Your task to perform on an android device: change notifications settings Image 0: 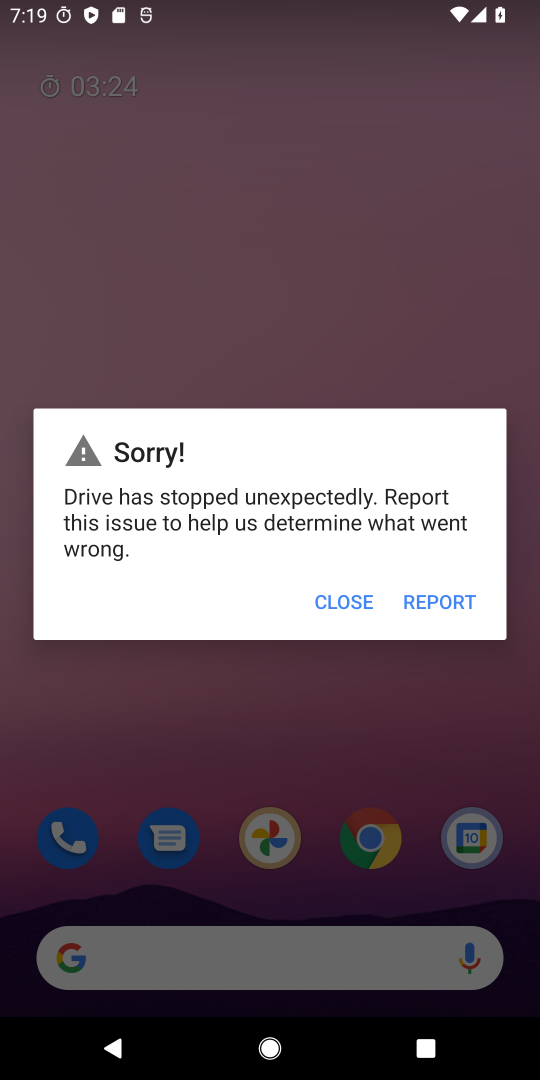
Step 0: press home button
Your task to perform on an android device: change notifications settings Image 1: 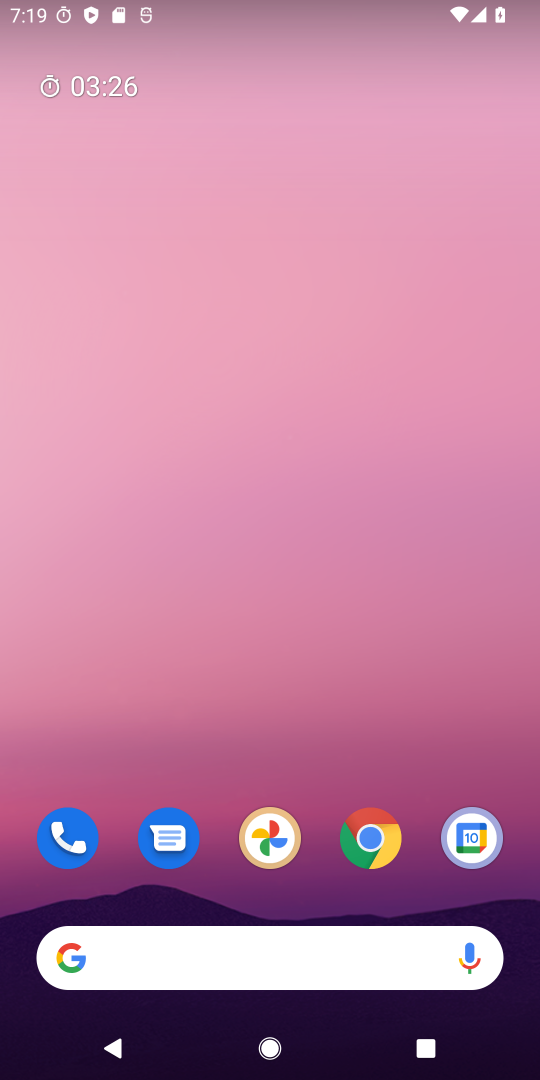
Step 1: drag from (311, 890) to (360, 144)
Your task to perform on an android device: change notifications settings Image 2: 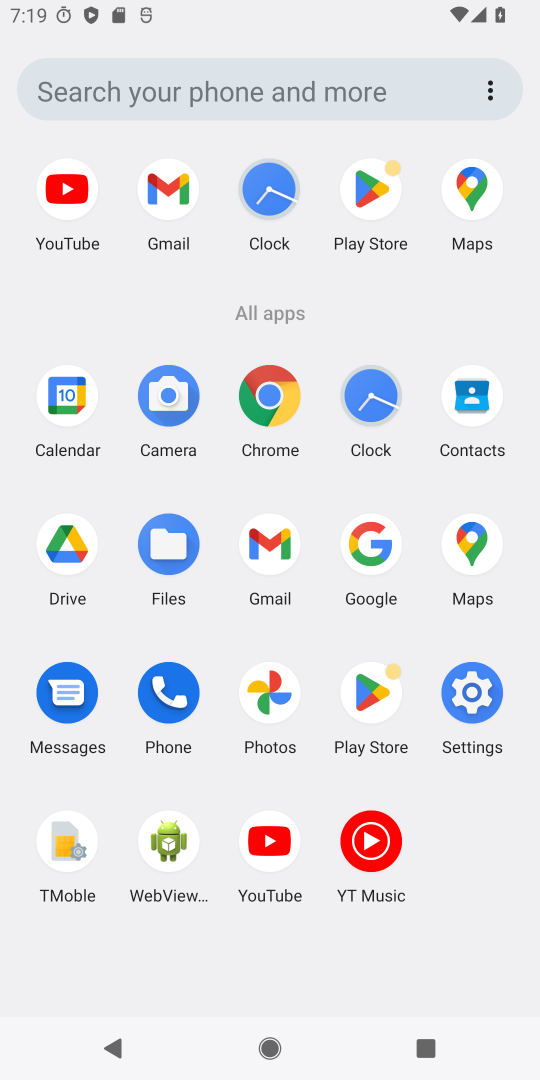
Step 2: click (469, 686)
Your task to perform on an android device: change notifications settings Image 3: 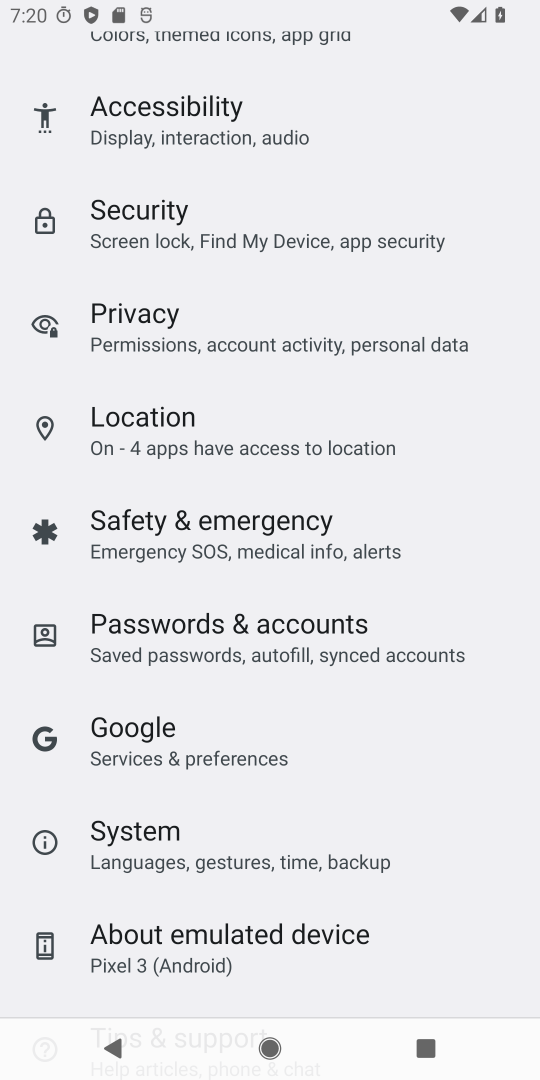
Step 3: drag from (266, 226) to (249, 830)
Your task to perform on an android device: change notifications settings Image 4: 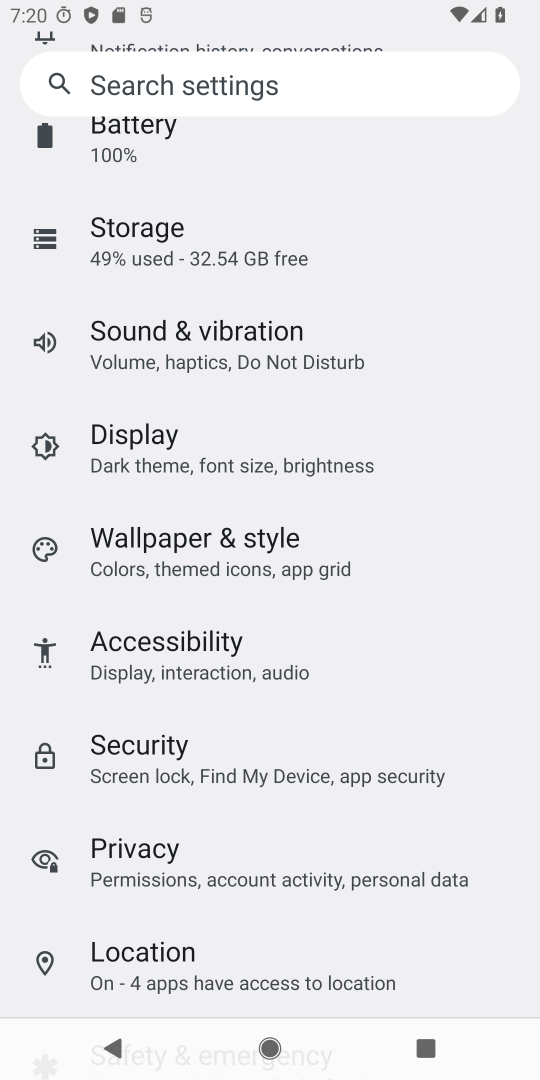
Step 4: drag from (200, 531) to (192, 708)
Your task to perform on an android device: change notifications settings Image 5: 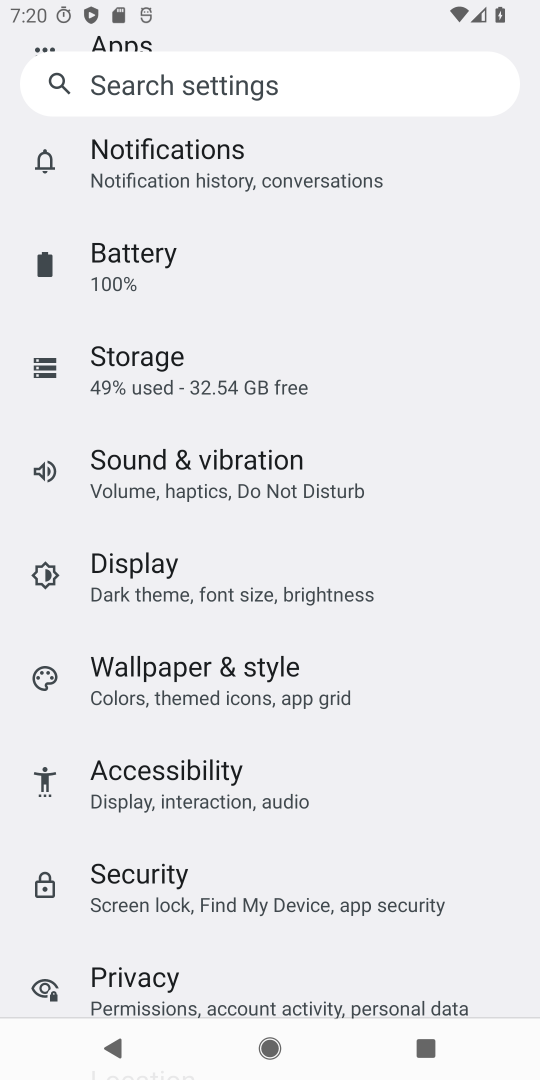
Step 5: click (147, 157)
Your task to perform on an android device: change notifications settings Image 6: 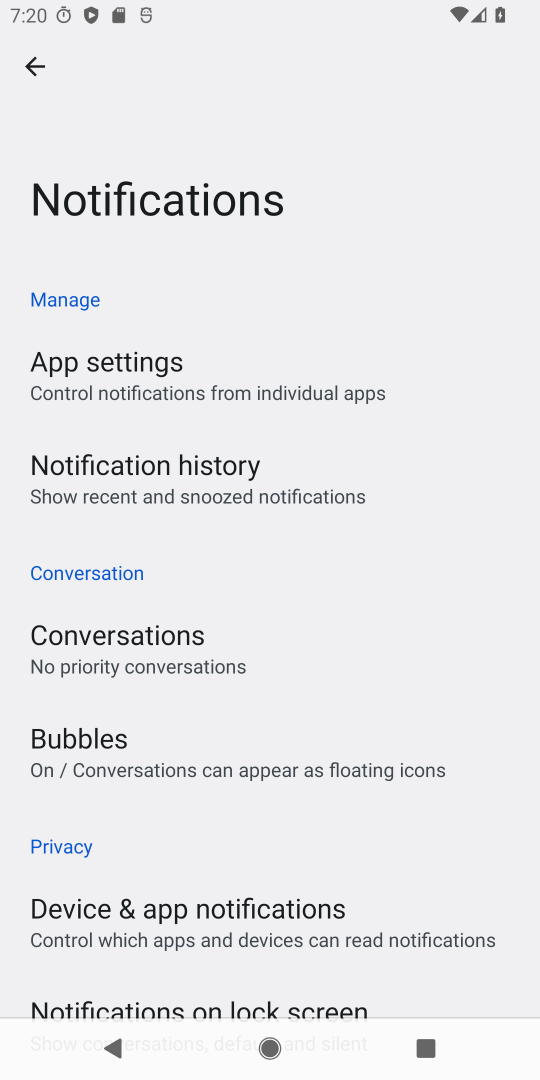
Step 6: task complete